Your task to perform on an android device: toggle wifi Image 0: 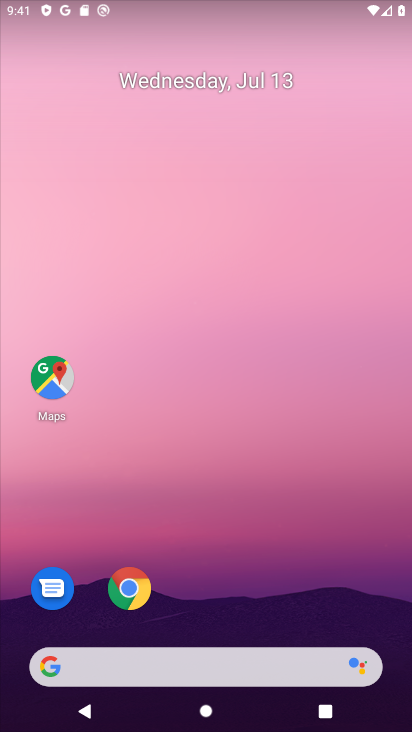
Step 0: drag from (238, 597) to (229, 108)
Your task to perform on an android device: toggle wifi Image 1: 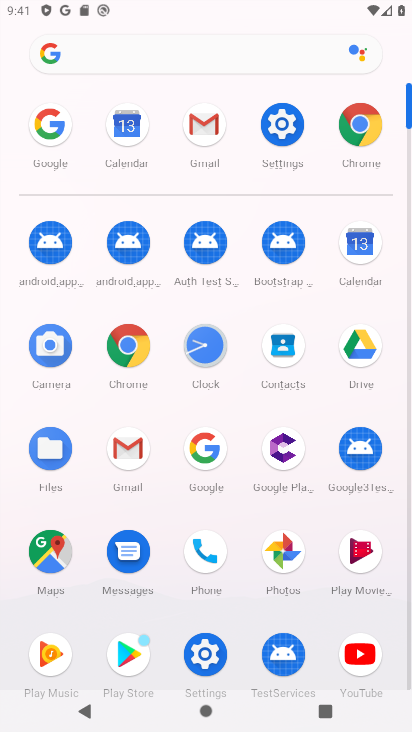
Step 1: click (283, 125)
Your task to perform on an android device: toggle wifi Image 2: 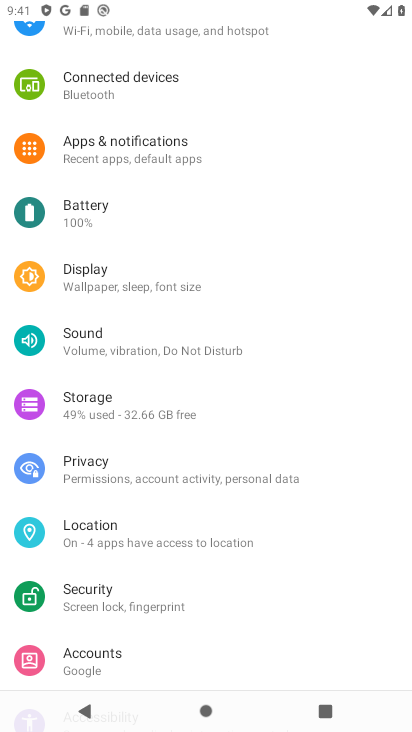
Step 2: drag from (169, 73) to (203, 568)
Your task to perform on an android device: toggle wifi Image 3: 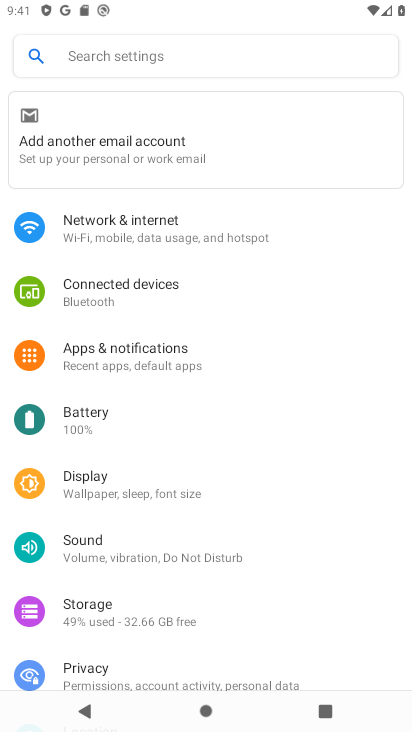
Step 3: click (159, 222)
Your task to perform on an android device: toggle wifi Image 4: 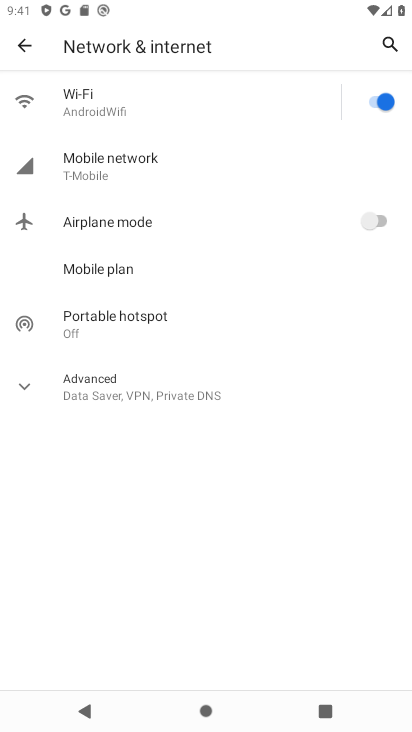
Step 4: click (371, 105)
Your task to perform on an android device: toggle wifi Image 5: 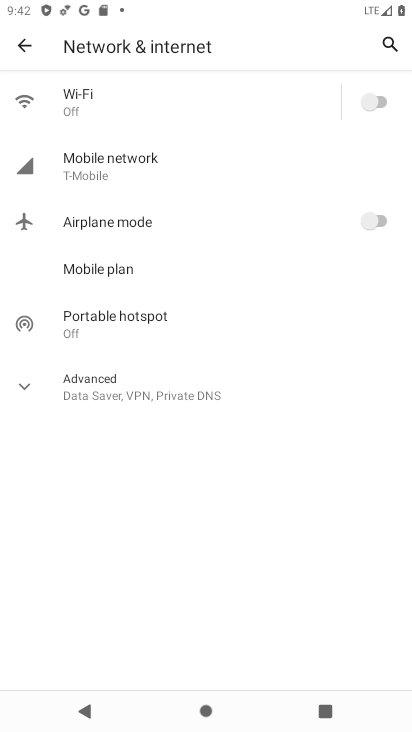
Step 5: task complete